Your task to perform on an android device: Open Chrome and go to the settings page Image 0: 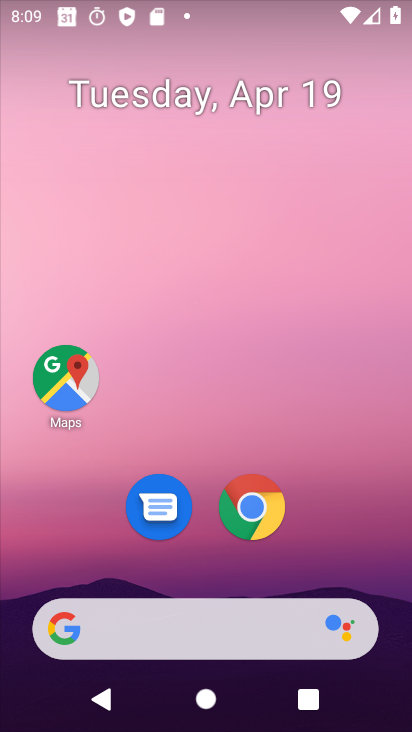
Step 0: click (253, 511)
Your task to perform on an android device: Open Chrome and go to the settings page Image 1: 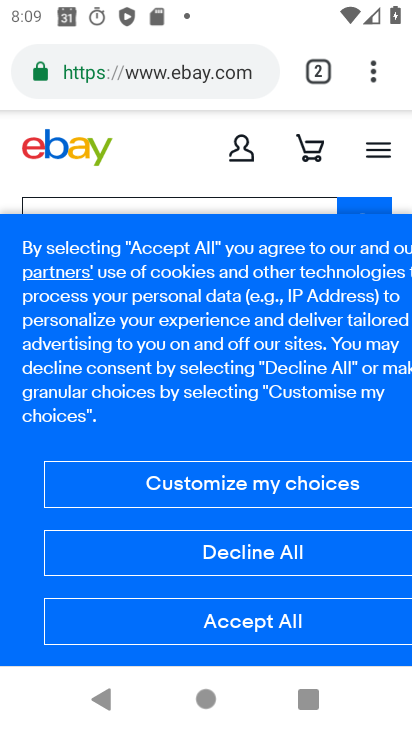
Step 1: click (370, 70)
Your task to perform on an android device: Open Chrome and go to the settings page Image 2: 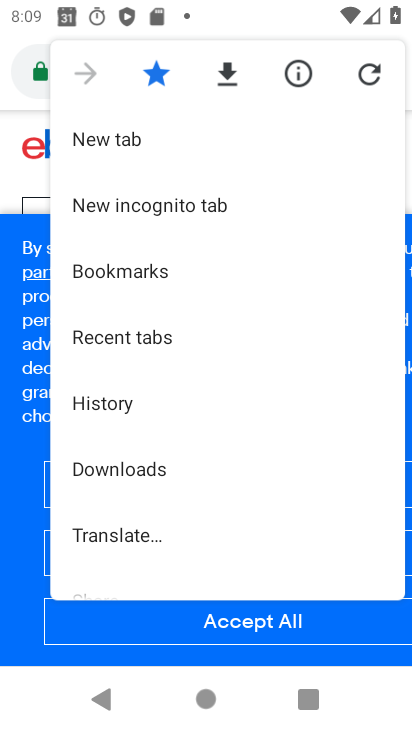
Step 2: drag from (188, 497) to (195, 177)
Your task to perform on an android device: Open Chrome and go to the settings page Image 3: 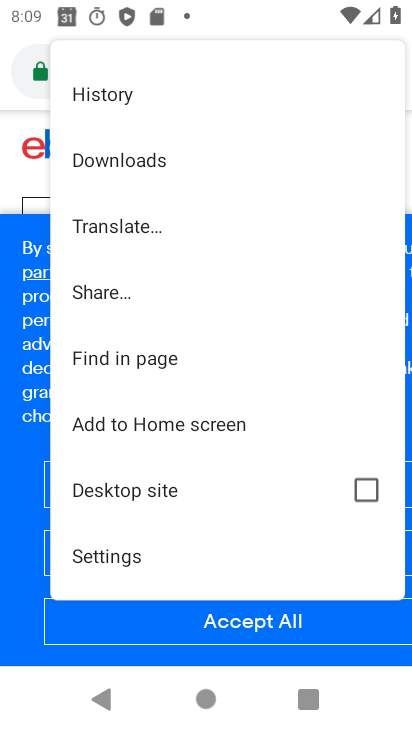
Step 3: click (124, 557)
Your task to perform on an android device: Open Chrome and go to the settings page Image 4: 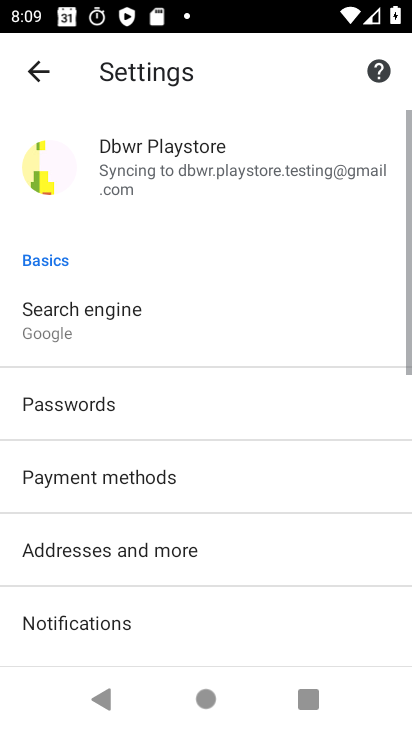
Step 4: task complete